Your task to perform on an android device: Clear the shopping cart on costco.com. Search for jbl flip 4 on costco.com, select the first entry, add it to the cart, then select checkout. Image 0: 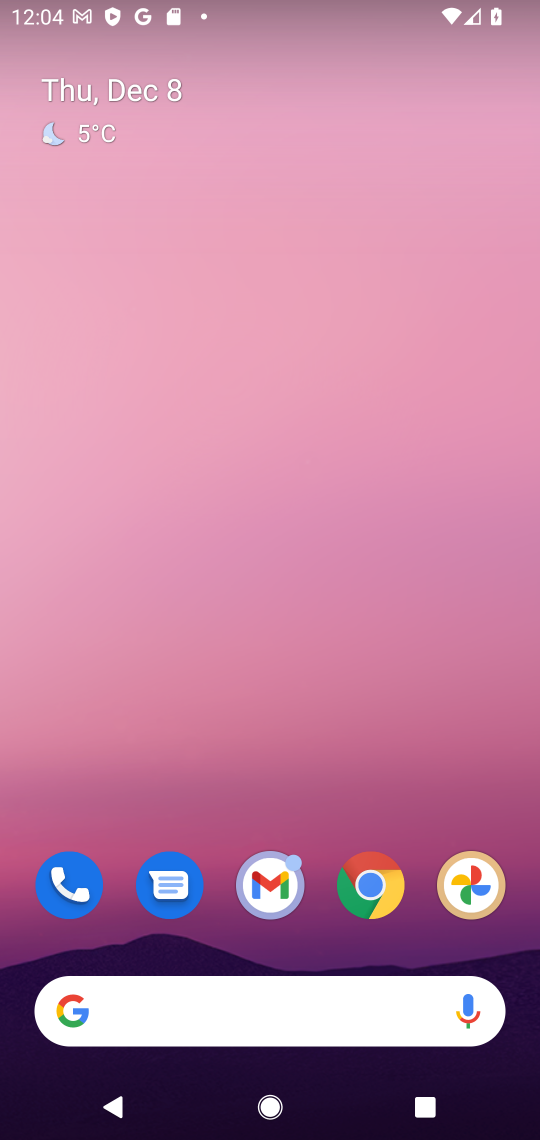
Step 0: click (364, 889)
Your task to perform on an android device: Clear the shopping cart on costco.com. Search for jbl flip 4 on costco.com, select the first entry, add it to the cart, then select checkout. Image 1: 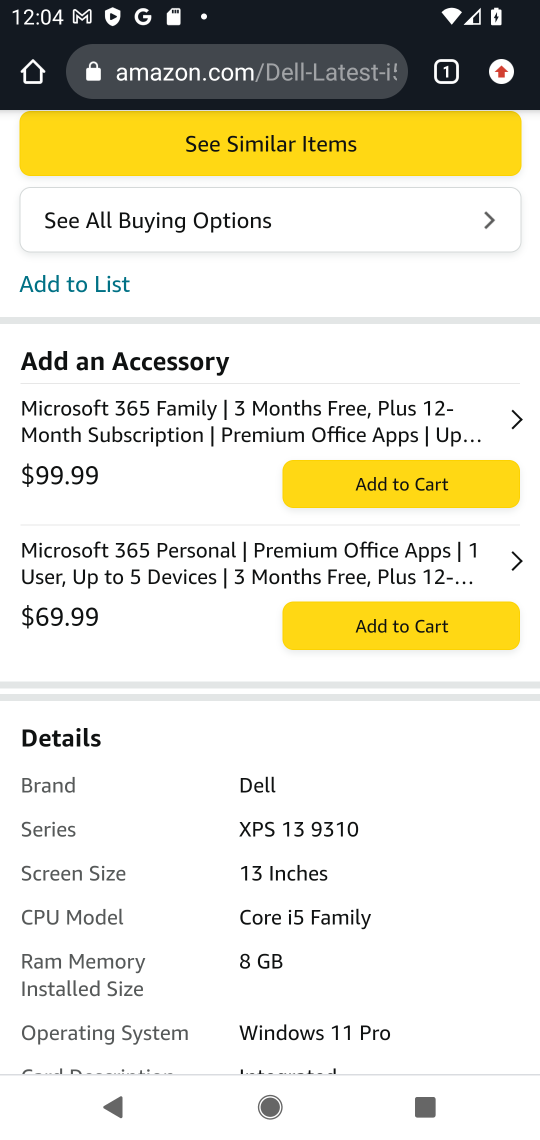
Step 1: click (254, 74)
Your task to perform on an android device: Clear the shopping cart on costco.com. Search for jbl flip 4 on costco.com, select the first entry, add it to the cart, then select checkout. Image 2: 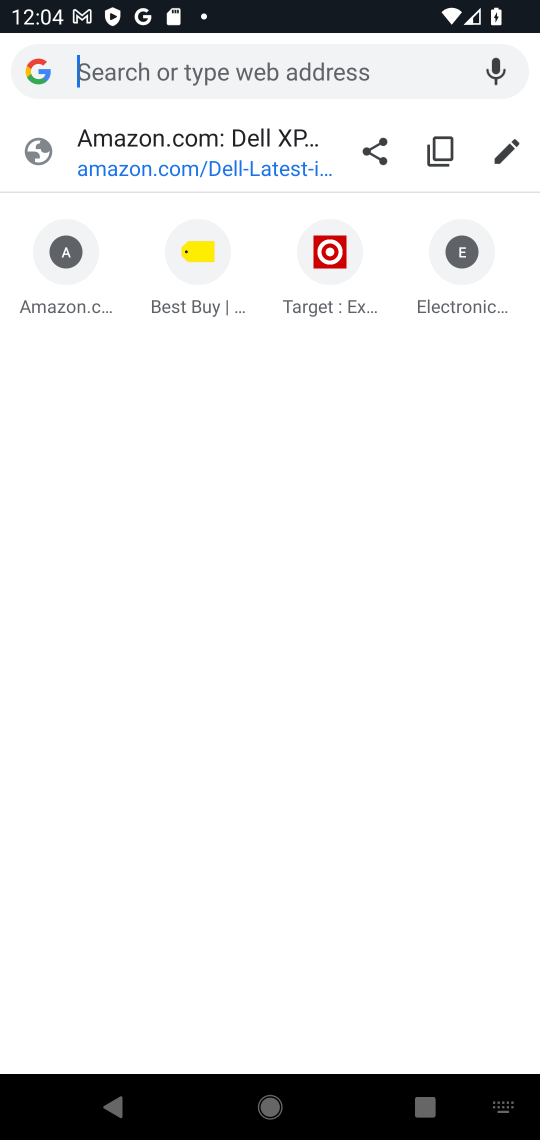
Step 2: type "COSTCO"
Your task to perform on an android device: Clear the shopping cart on costco.com. Search for jbl flip 4 on costco.com, select the first entry, add it to the cart, then select checkout. Image 3: 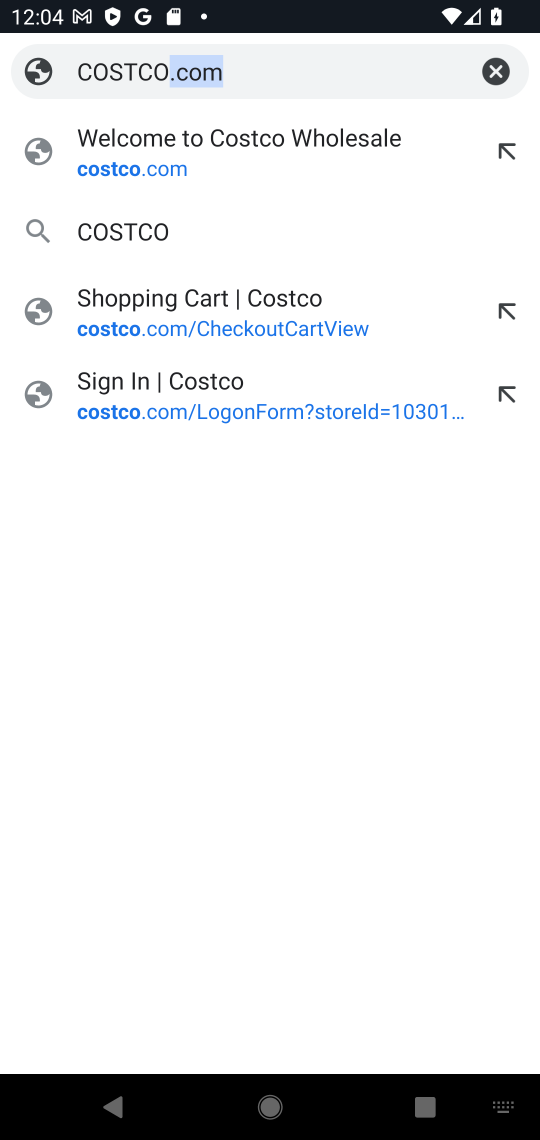
Step 3: click (143, 158)
Your task to perform on an android device: Clear the shopping cart on costco.com. Search for jbl flip 4 on costco.com, select the first entry, add it to the cart, then select checkout. Image 4: 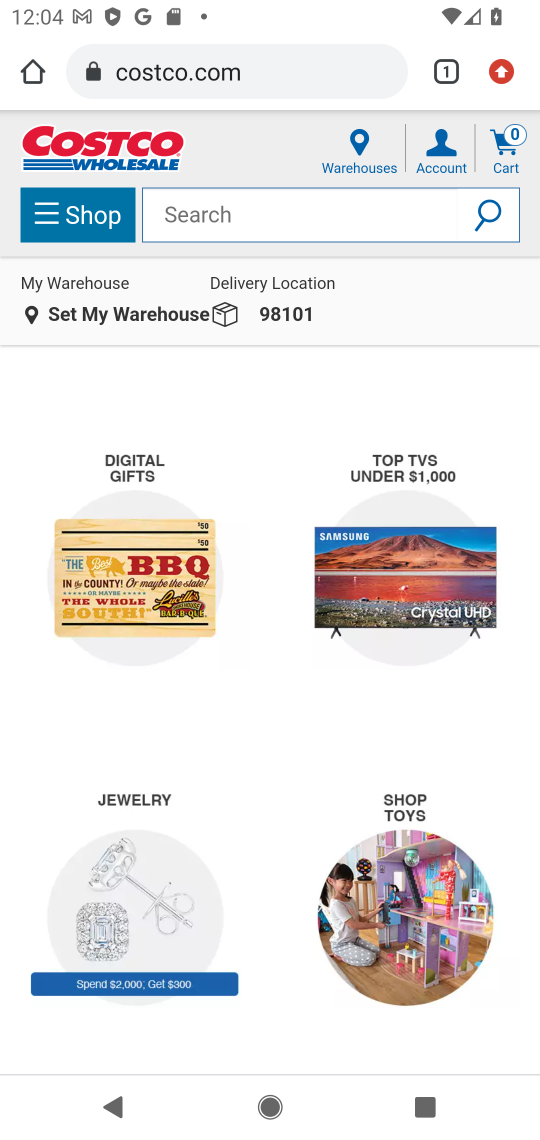
Step 4: click (381, 214)
Your task to perform on an android device: Clear the shopping cart on costco.com. Search for jbl flip 4 on costco.com, select the first entry, add it to the cart, then select checkout. Image 5: 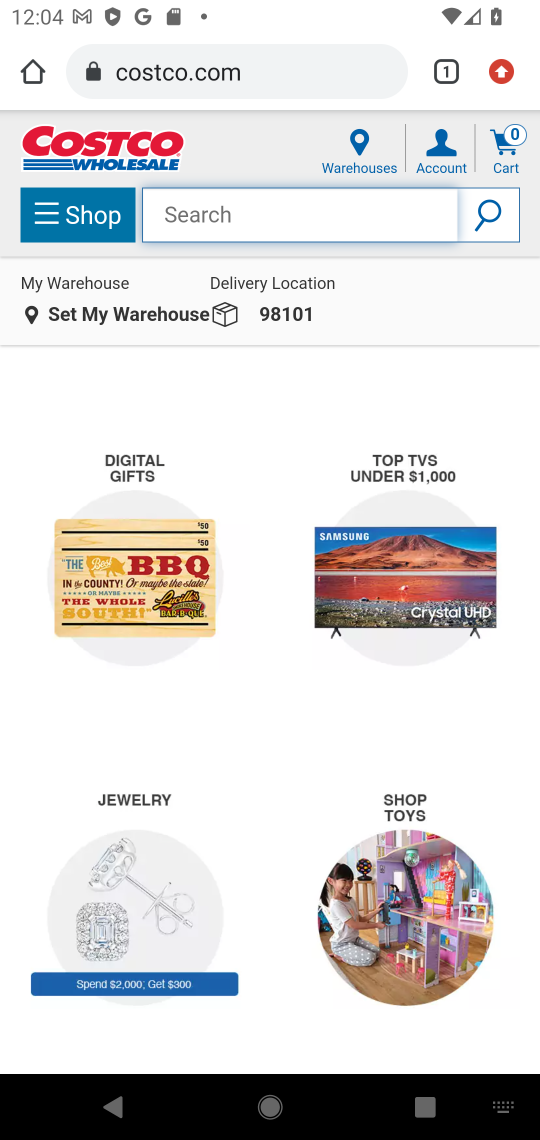
Step 5: type "jbl flip 4"
Your task to perform on an android device: Clear the shopping cart on costco.com. Search for jbl flip 4 on costco.com, select the first entry, add it to the cart, then select checkout. Image 6: 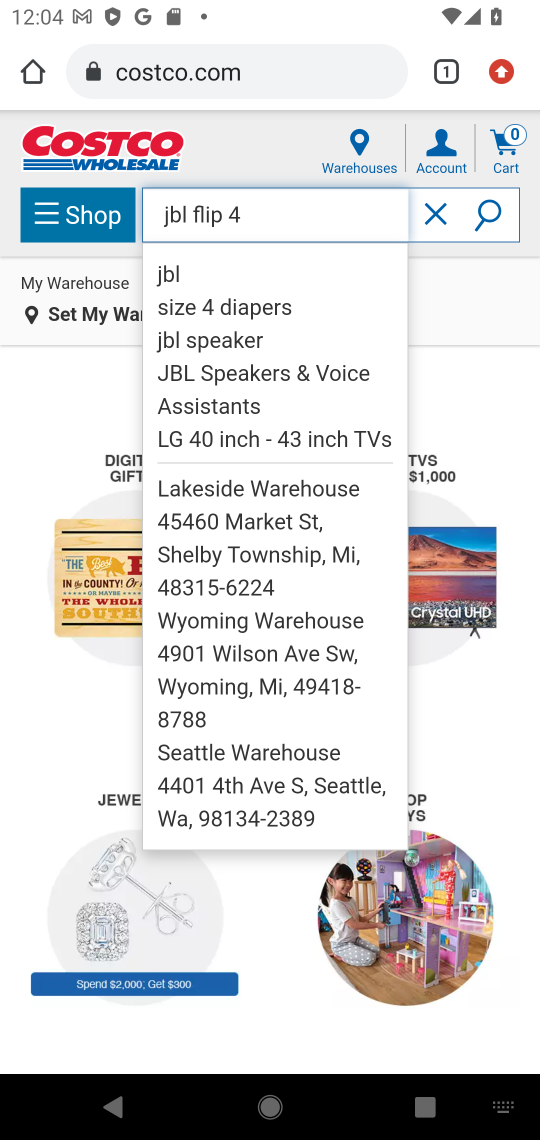
Step 6: click (185, 273)
Your task to perform on an android device: Clear the shopping cart on costco.com. Search for jbl flip 4 on costco.com, select the first entry, add it to the cart, then select checkout. Image 7: 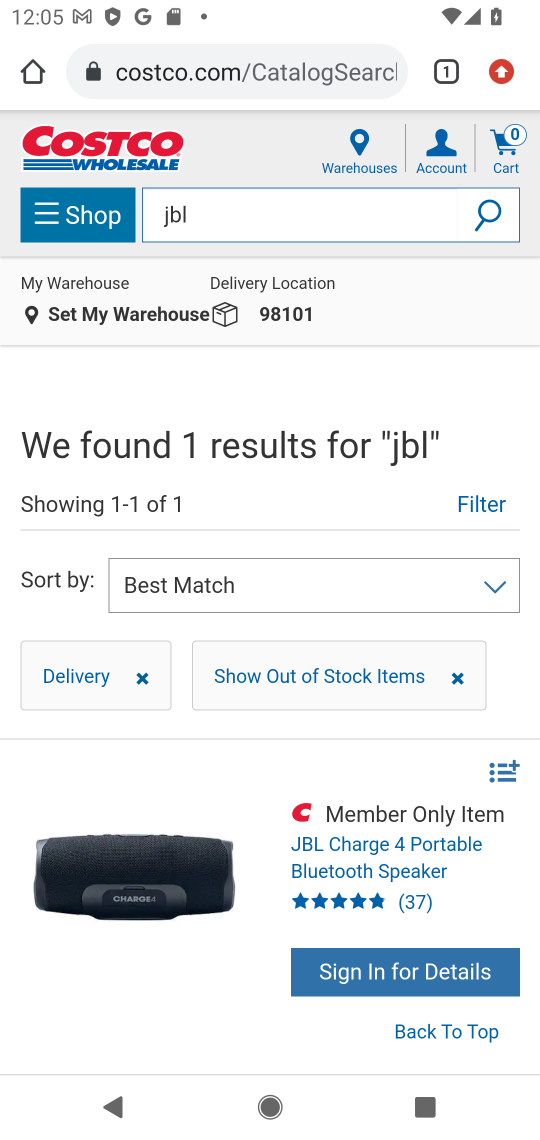
Step 7: click (142, 892)
Your task to perform on an android device: Clear the shopping cart on costco.com. Search for jbl flip 4 on costco.com, select the first entry, add it to the cart, then select checkout. Image 8: 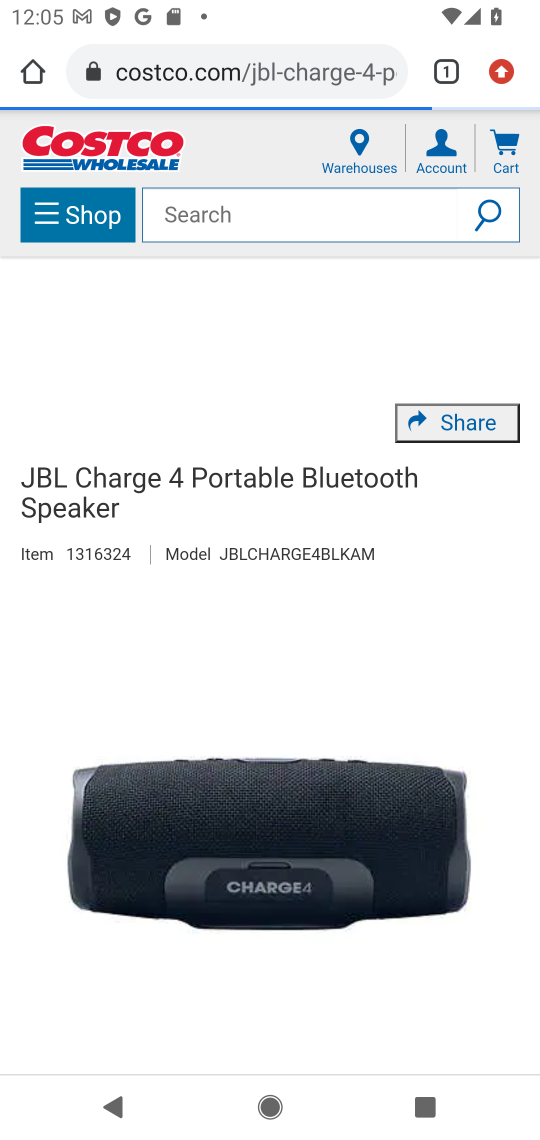
Step 8: drag from (373, 916) to (333, 427)
Your task to perform on an android device: Clear the shopping cart on costco.com. Search for jbl flip 4 on costco.com, select the first entry, add it to the cart, then select checkout. Image 9: 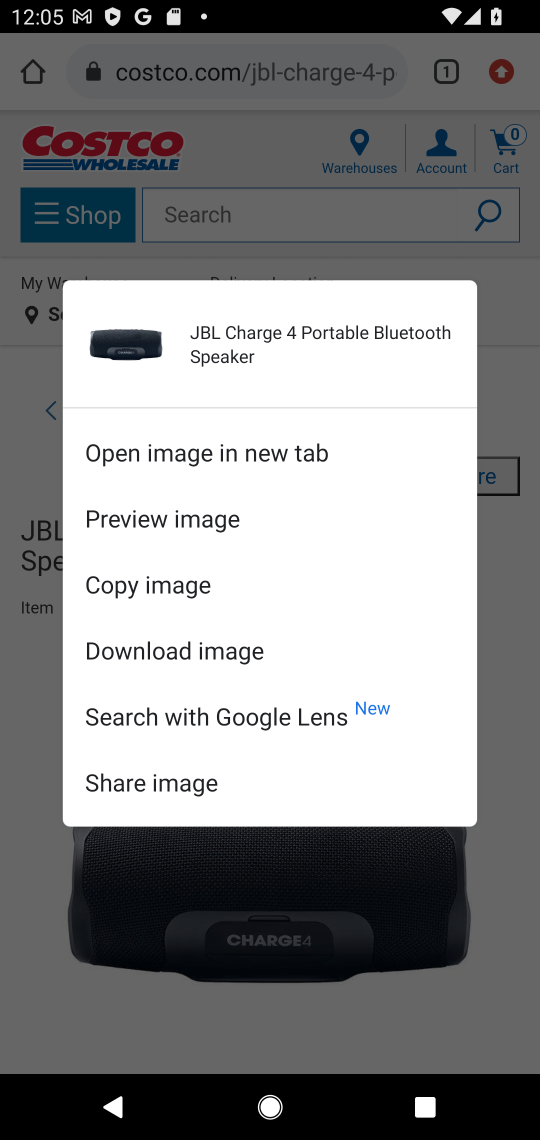
Step 9: click (506, 635)
Your task to perform on an android device: Clear the shopping cart on costco.com. Search for jbl flip 4 on costco.com, select the first entry, add it to the cart, then select checkout. Image 10: 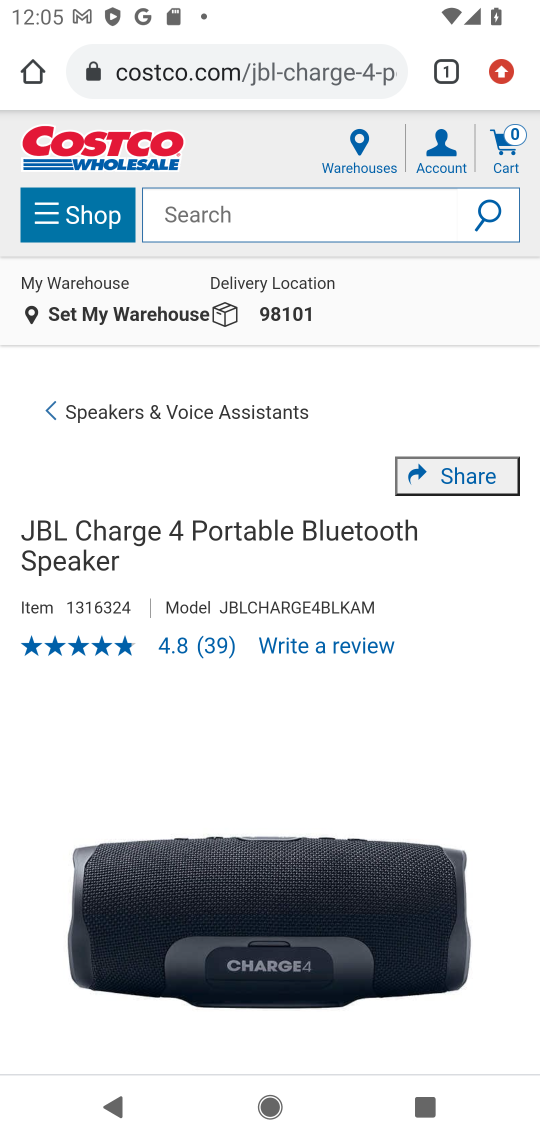
Step 10: task complete